Your task to perform on an android device: Open Google Image 0: 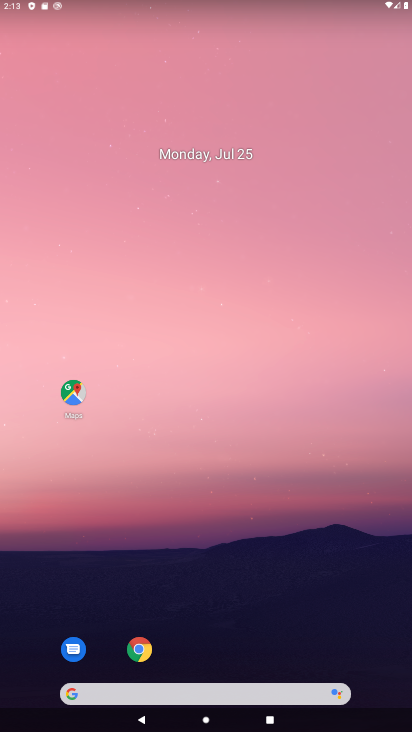
Step 0: drag from (216, 571) to (215, 105)
Your task to perform on an android device: Open Google Image 1: 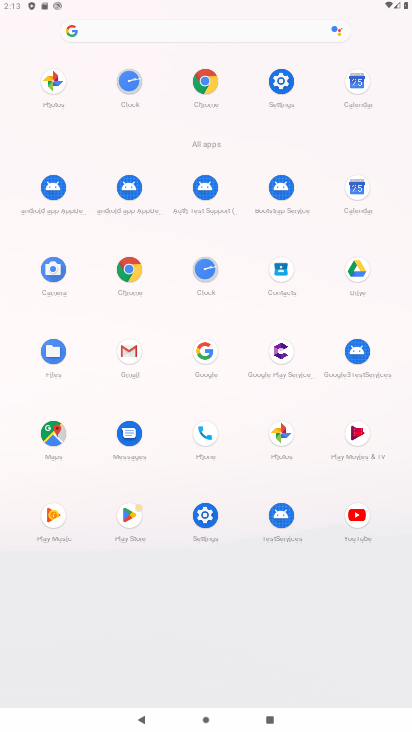
Step 1: click (200, 347)
Your task to perform on an android device: Open Google Image 2: 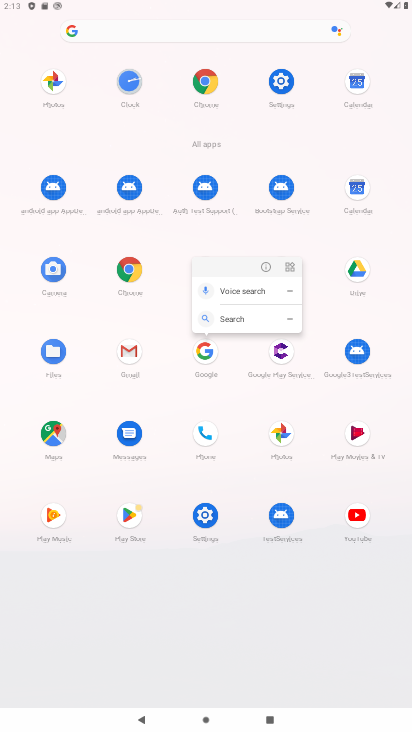
Step 2: click (200, 347)
Your task to perform on an android device: Open Google Image 3: 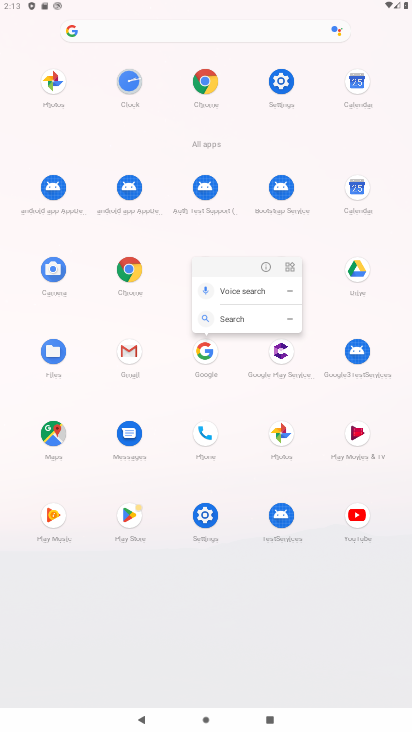
Step 3: click (200, 347)
Your task to perform on an android device: Open Google Image 4: 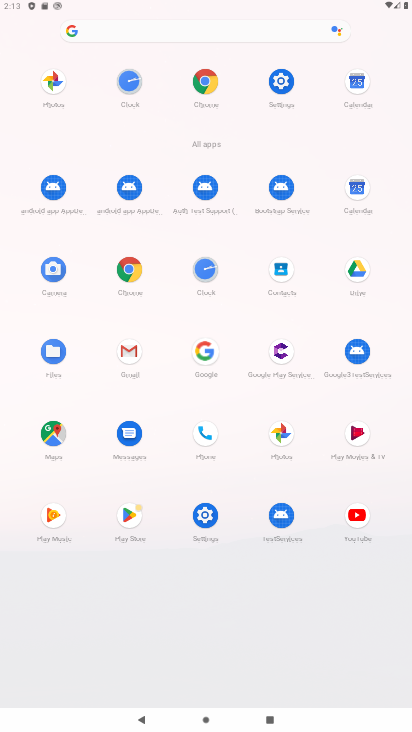
Step 4: click (200, 347)
Your task to perform on an android device: Open Google Image 5: 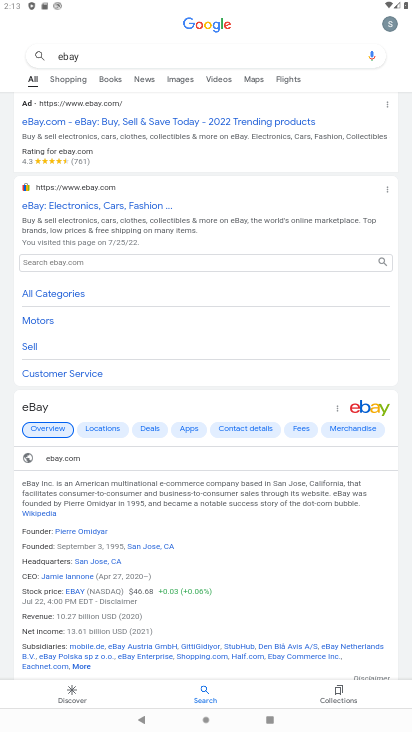
Step 5: task complete